Your task to perform on an android device: open sync settings in chrome Image 0: 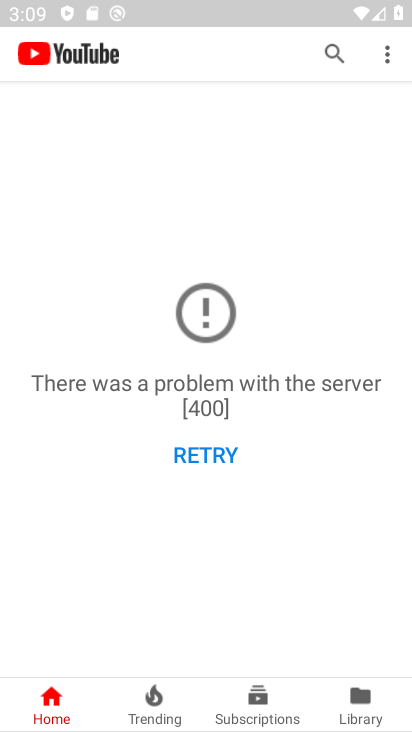
Step 0: press home button
Your task to perform on an android device: open sync settings in chrome Image 1: 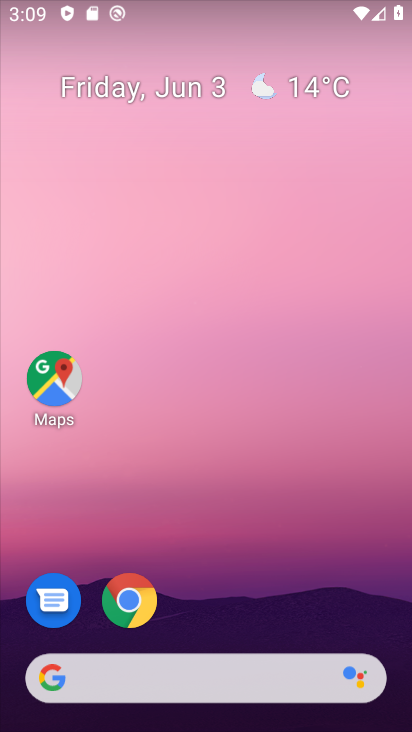
Step 1: click (141, 595)
Your task to perform on an android device: open sync settings in chrome Image 2: 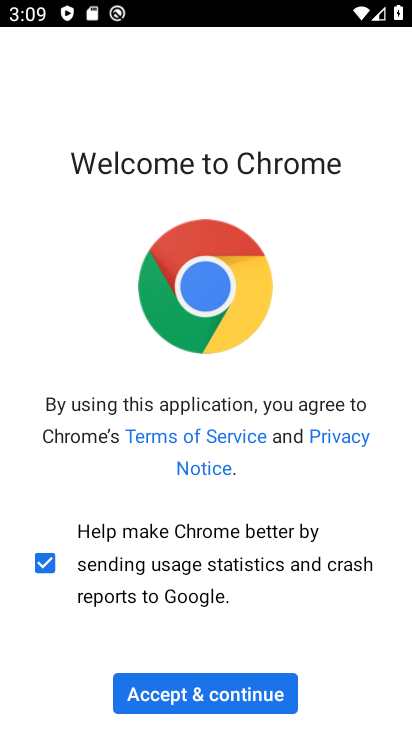
Step 2: click (202, 681)
Your task to perform on an android device: open sync settings in chrome Image 3: 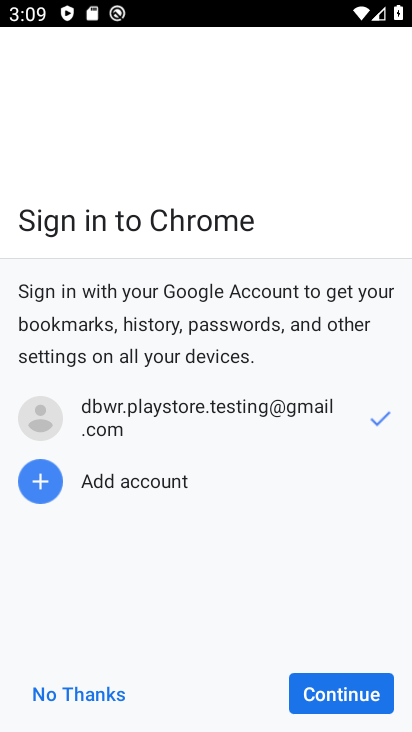
Step 3: click (312, 689)
Your task to perform on an android device: open sync settings in chrome Image 4: 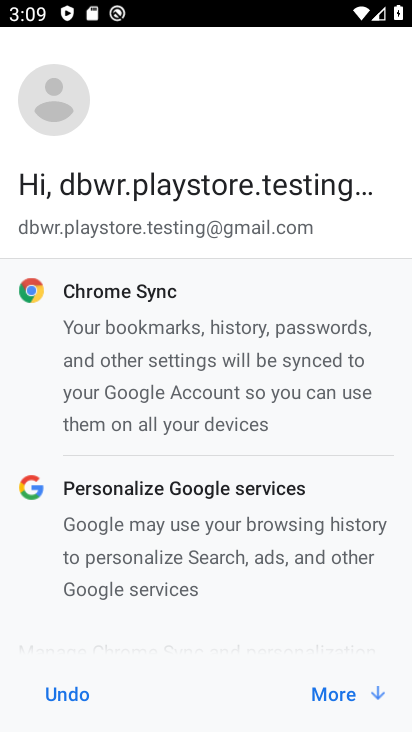
Step 4: click (323, 703)
Your task to perform on an android device: open sync settings in chrome Image 5: 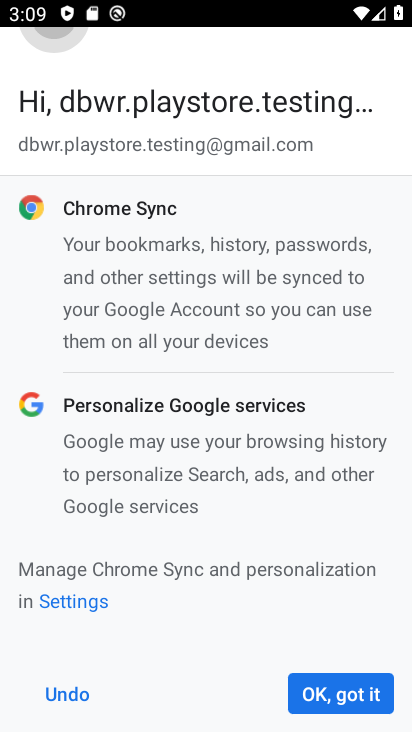
Step 5: click (320, 698)
Your task to perform on an android device: open sync settings in chrome Image 6: 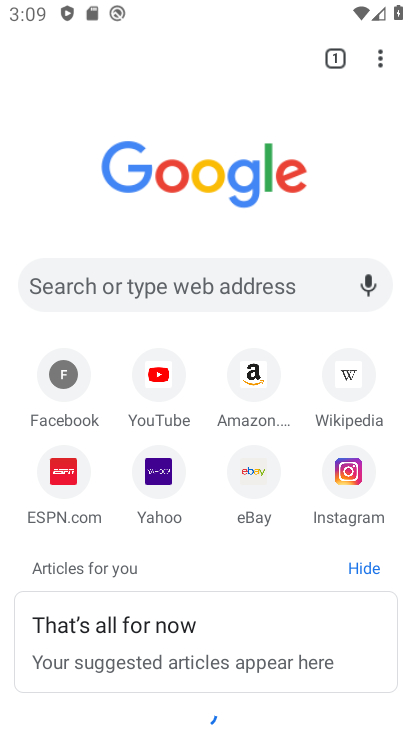
Step 6: click (383, 68)
Your task to perform on an android device: open sync settings in chrome Image 7: 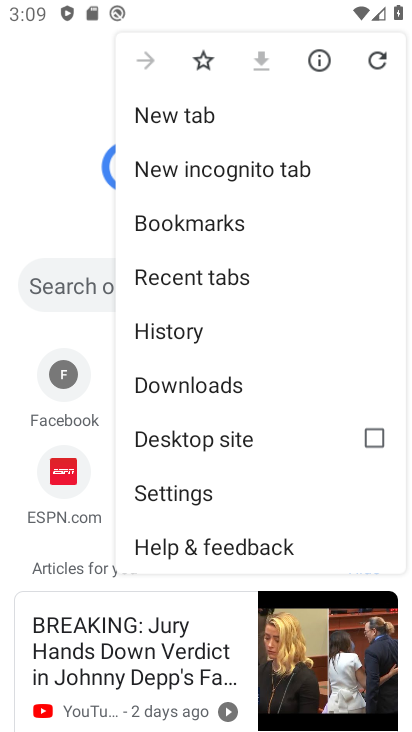
Step 7: click (219, 485)
Your task to perform on an android device: open sync settings in chrome Image 8: 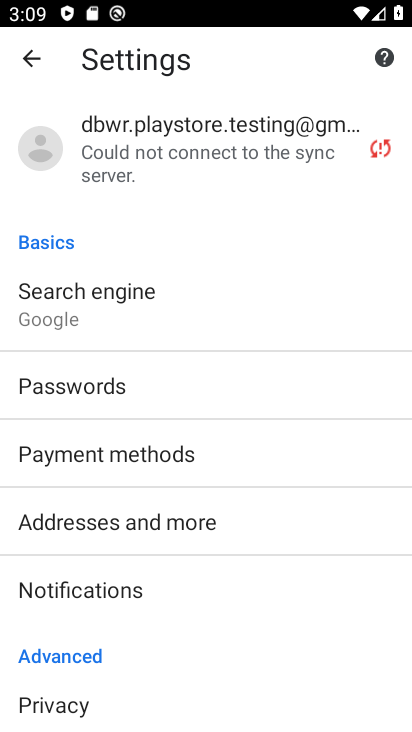
Step 8: click (262, 157)
Your task to perform on an android device: open sync settings in chrome Image 9: 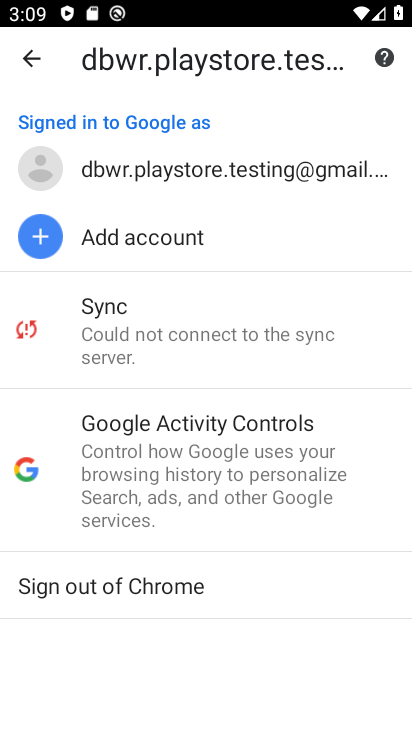
Step 9: click (198, 323)
Your task to perform on an android device: open sync settings in chrome Image 10: 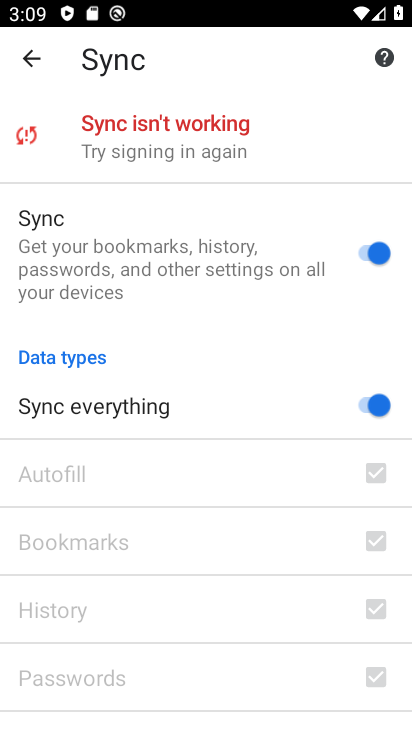
Step 10: task complete